Your task to perform on an android device: Clear all items from cart on ebay.com. Search for apple airpods pro on ebay.com, select the first entry, add it to the cart, then select checkout. Image 0: 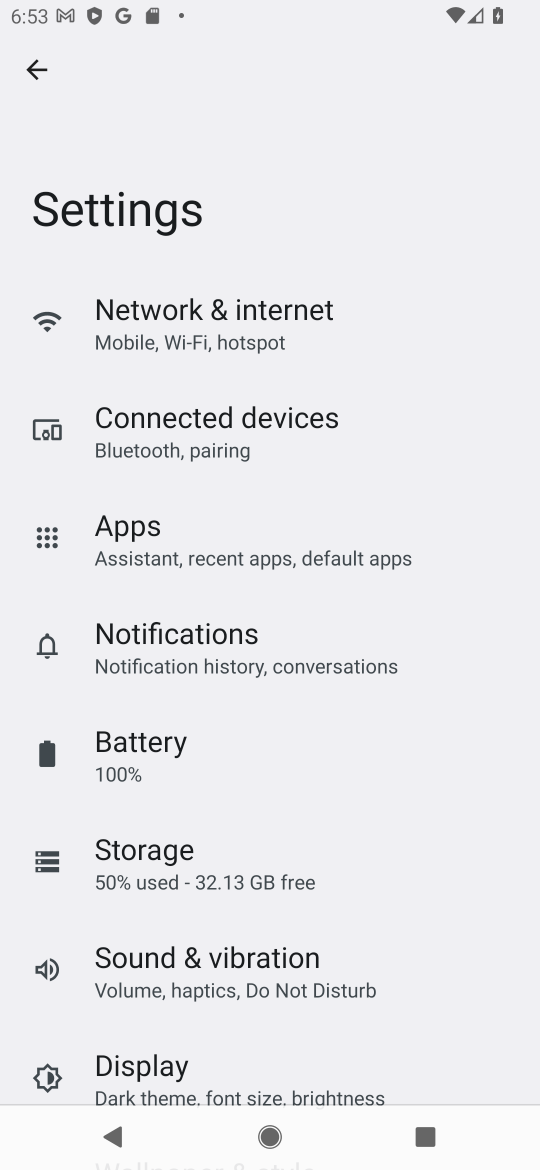
Step 0: press home button
Your task to perform on an android device: Clear all items from cart on ebay.com. Search for apple airpods pro on ebay.com, select the first entry, add it to the cart, then select checkout. Image 1: 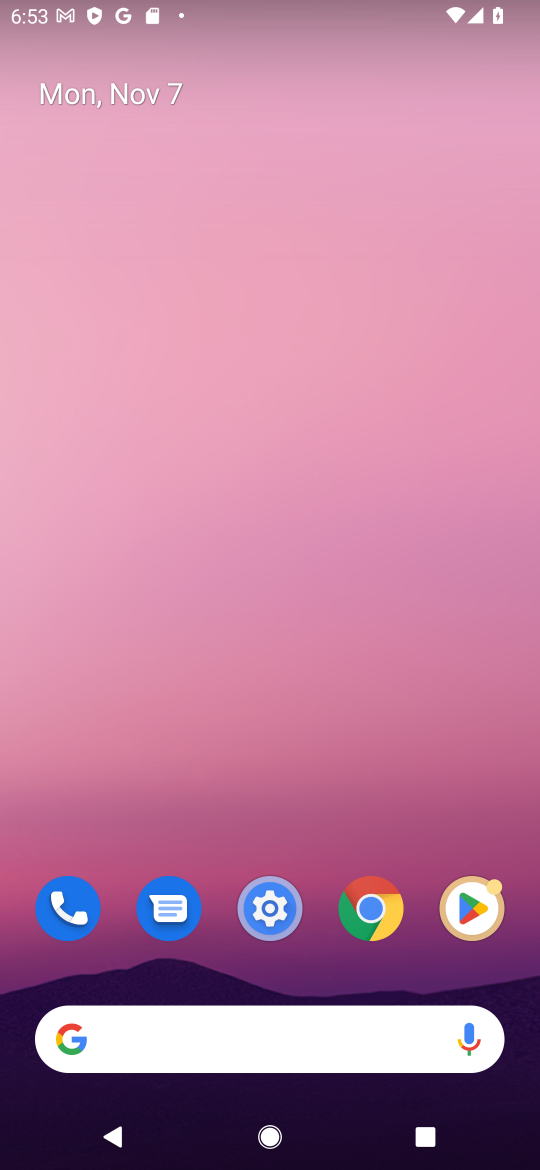
Step 1: task complete